Your task to perform on an android device: Show me productivity apps on the Play Store Image 0: 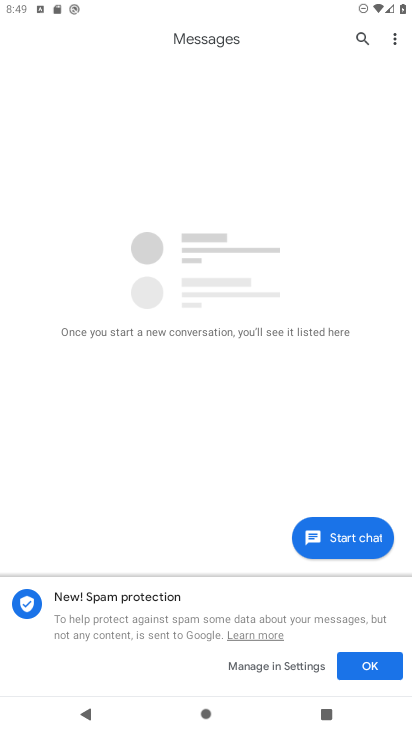
Step 0: press home button
Your task to perform on an android device: Show me productivity apps on the Play Store Image 1: 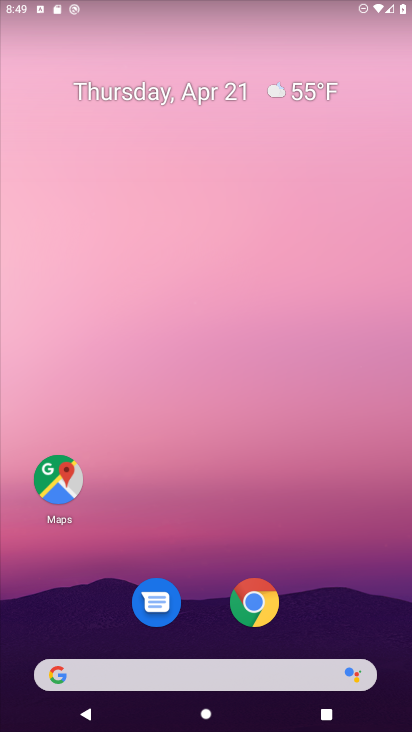
Step 1: drag from (215, 631) to (248, 113)
Your task to perform on an android device: Show me productivity apps on the Play Store Image 2: 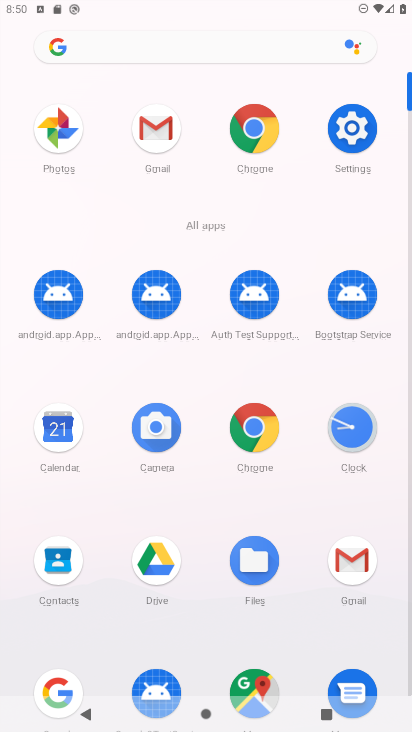
Step 2: drag from (218, 594) to (218, 211)
Your task to perform on an android device: Show me productivity apps on the Play Store Image 3: 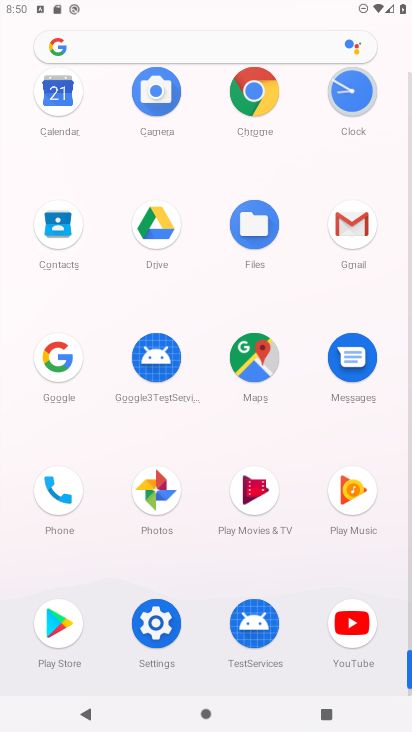
Step 3: click (63, 633)
Your task to perform on an android device: Show me productivity apps on the Play Store Image 4: 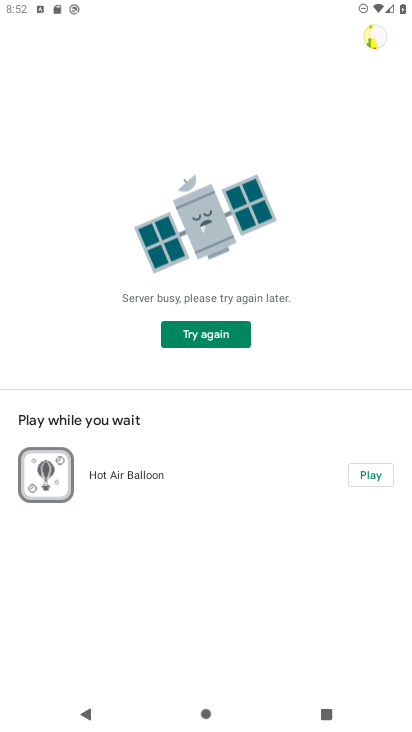
Step 4: task complete